Your task to perform on an android device: Is it going to rain today? Image 0: 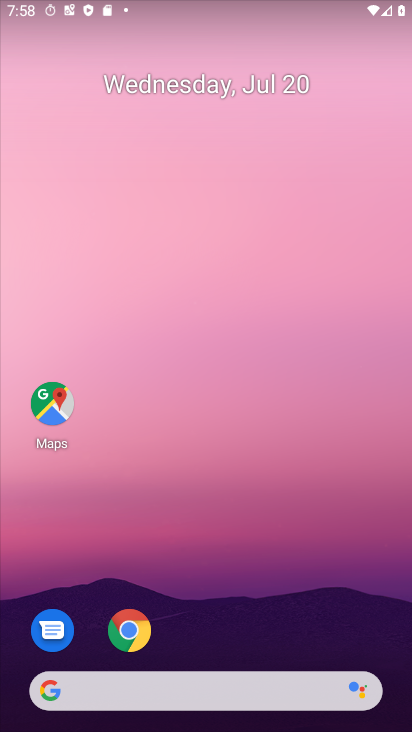
Step 0: drag from (210, 715) to (223, 191)
Your task to perform on an android device: Is it going to rain today? Image 1: 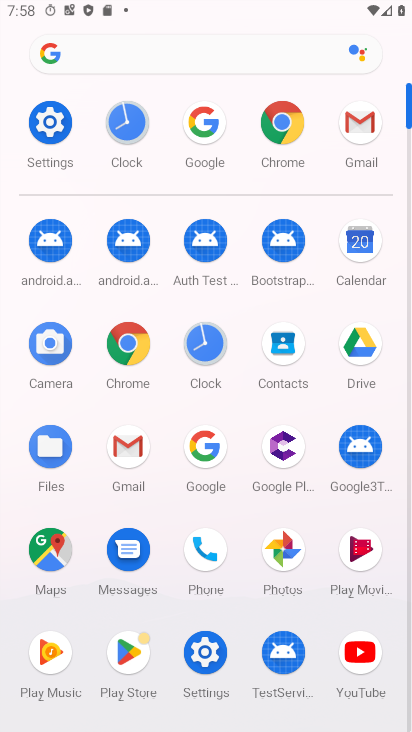
Step 1: drag from (178, 486) to (175, 340)
Your task to perform on an android device: Is it going to rain today? Image 2: 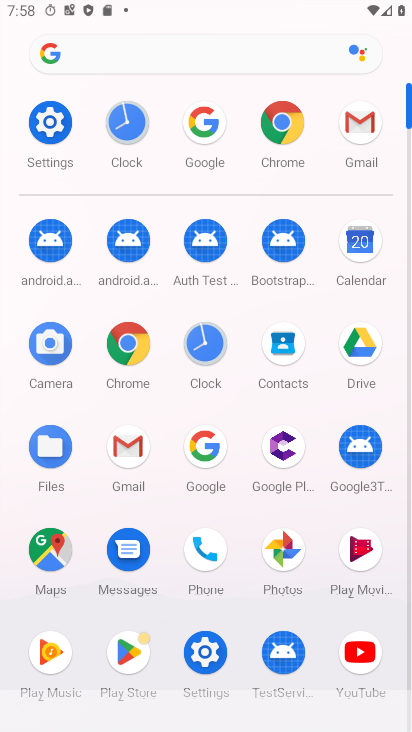
Step 2: click (213, 467)
Your task to perform on an android device: Is it going to rain today? Image 3: 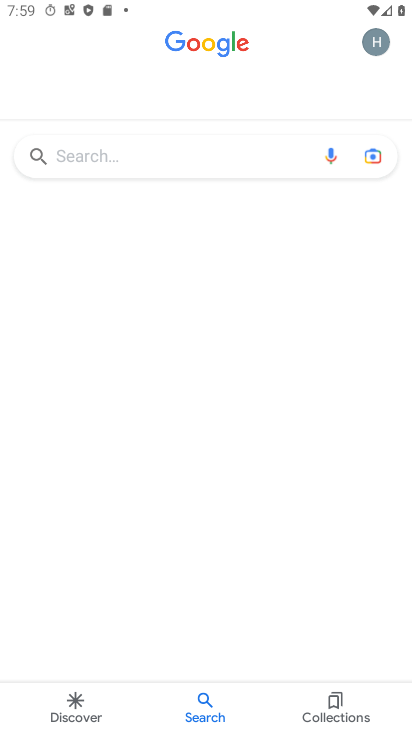
Step 3: click (190, 175)
Your task to perform on an android device: Is it going to rain today? Image 4: 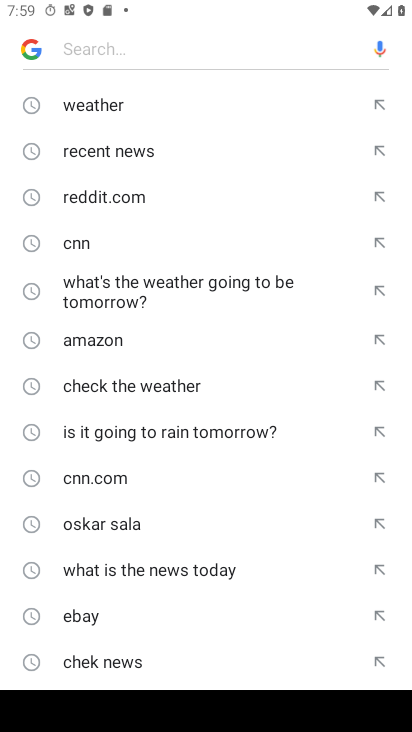
Step 4: click (121, 110)
Your task to perform on an android device: Is it going to rain today? Image 5: 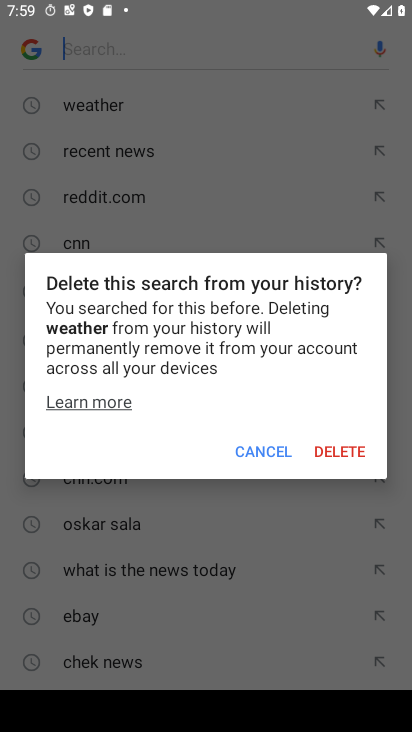
Step 5: click (154, 103)
Your task to perform on an android device: Is it going to rain today? Image 6: 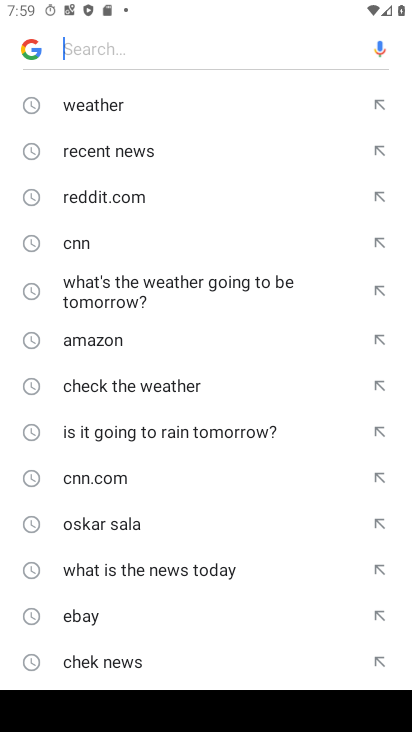
Step 6: click (90, 103)
Your task to perform on an android device: Is it going to rain today? Image 7: 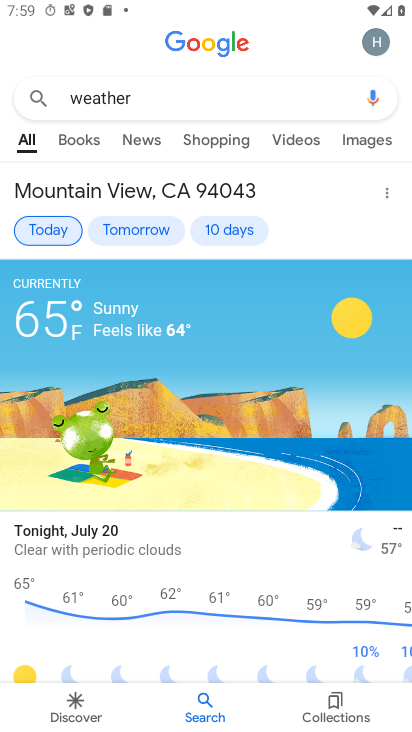
Step 7: task complete